Your task to perform on an android device: turn notification dots off Image 0: 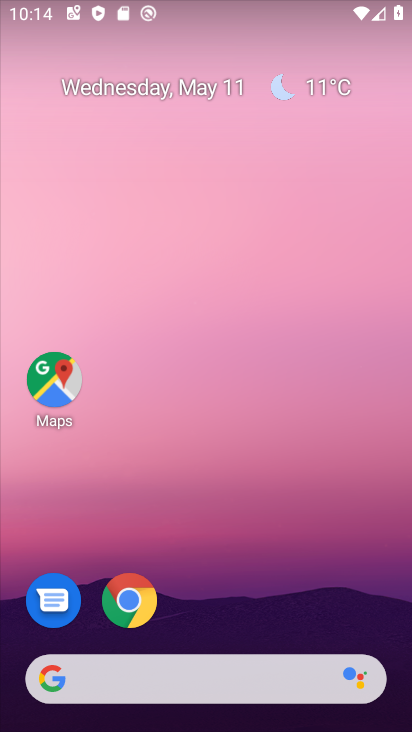
Step 0: drag from (239, 511) to (208, 208)
Your task to perform on an android device: turn notification dots off Image 1: 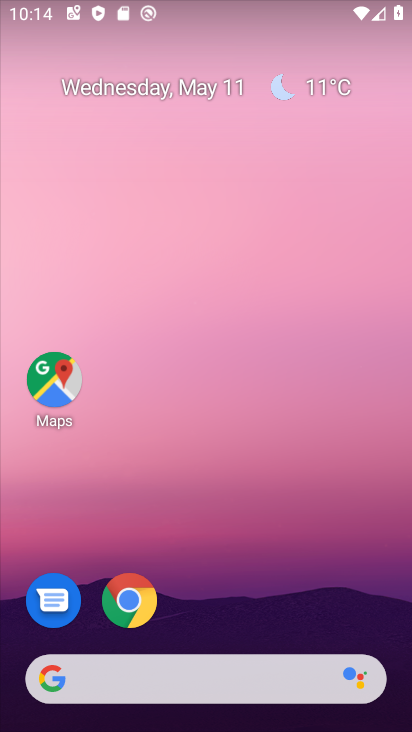
Step 1: drag from (228, 474) to (195, 39)
Your task to perform on an android device: turn notification dots off Image 2: 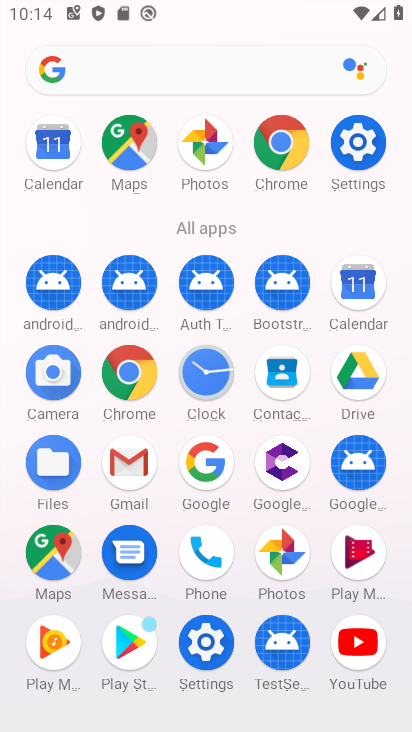
Step 2: click (347, 145)
Your task to perform on an android device: turn notification dots off Image 3: 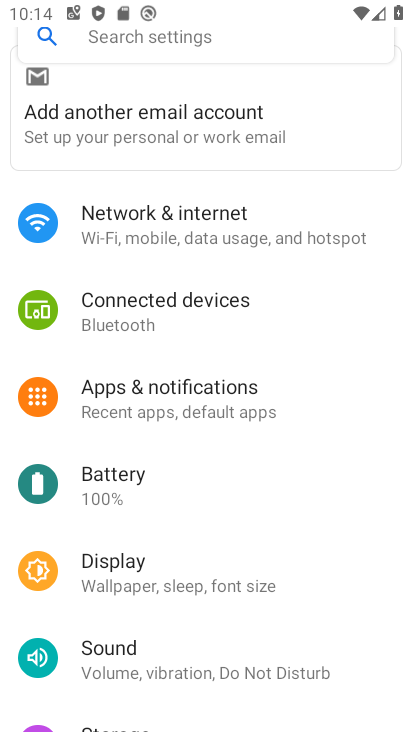
Step 3: click (206, 395)
Your task to perform on an android device: turn notification dots off Image 4: 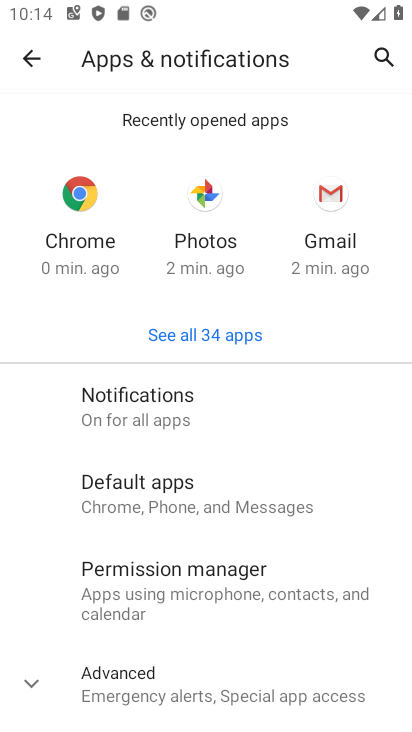
Step 4: click (263, 407)
Your task to perform on an android device: turn notification dots off Image 5: 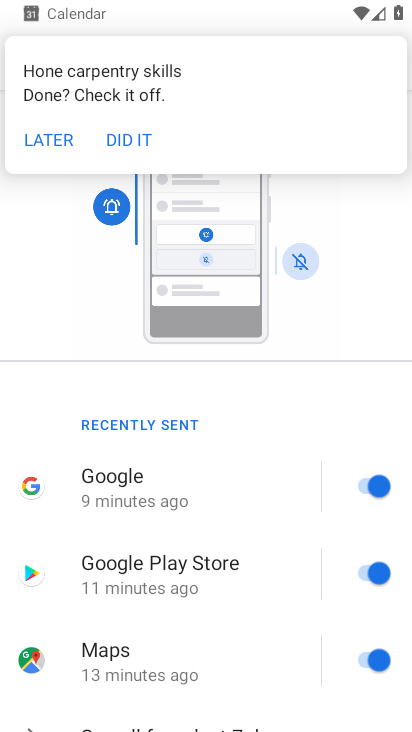
Step 5: drag from (282, 637) to (322, 463)
Your task to perform on an android device: turn notification dots off Image 6: 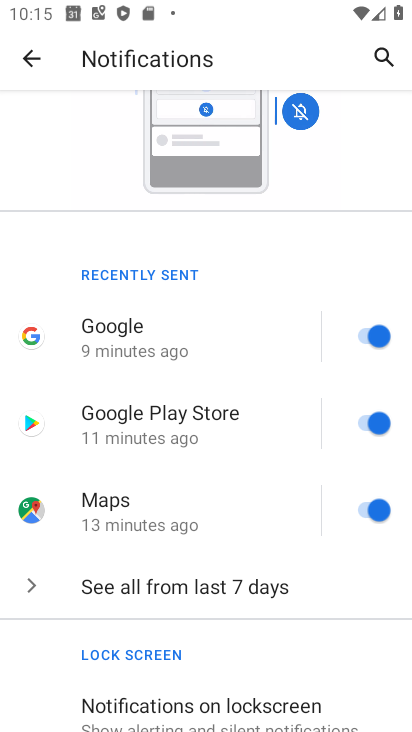
Step 6: drag from (316, 158) to (268, 642)
Your task to perform on an android device: turn notification dots off Image 7: 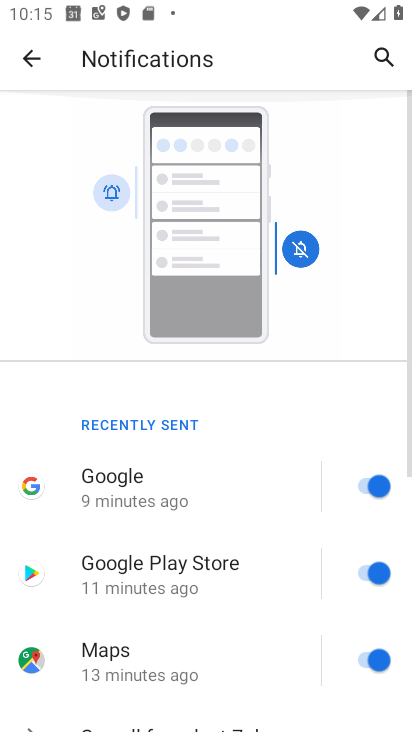
Step 7: drag from (264, 634) to (341, 125)
Your task to perform on an android device: turn notification dots off Image 8: 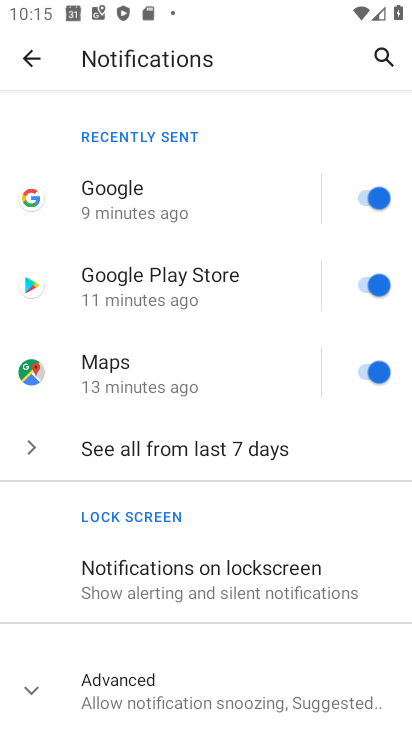
Step 8: click (206, 702)
Your task to perform on an android device: turn notification dots off Image 9: 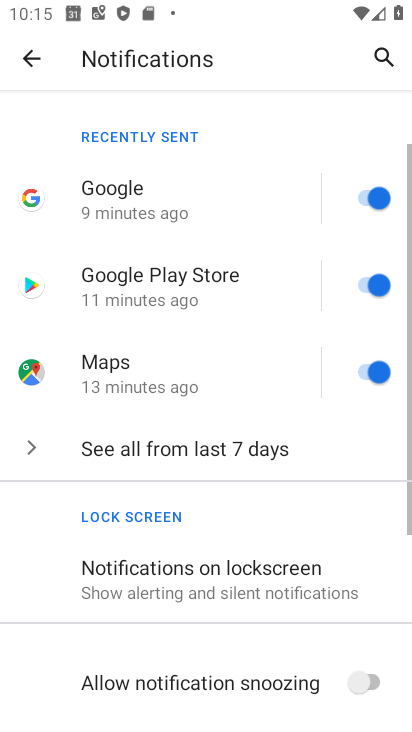
Step 9: drag from (173, 722) to (238, 369)
Your task to perform on an android device: turn notification dots off Image 10: 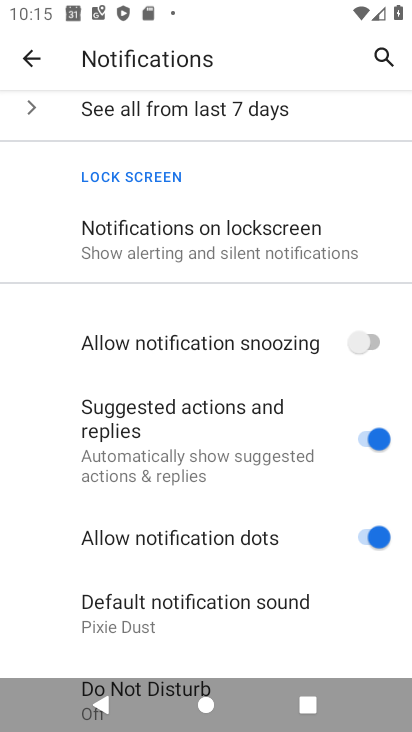
Step 10: drag from (223, 560) to (267, 291)
Your task to perform on an android device: turn notification dots off Image 11: 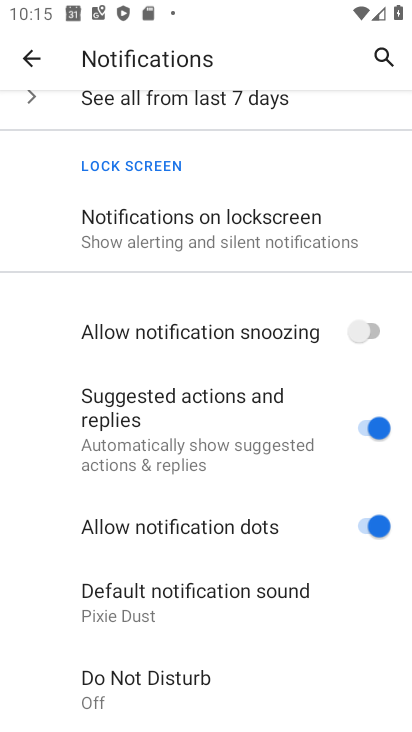
Step 11: click (378, 523)
Your task to perform on an android device: turn notification dots off Image 12: 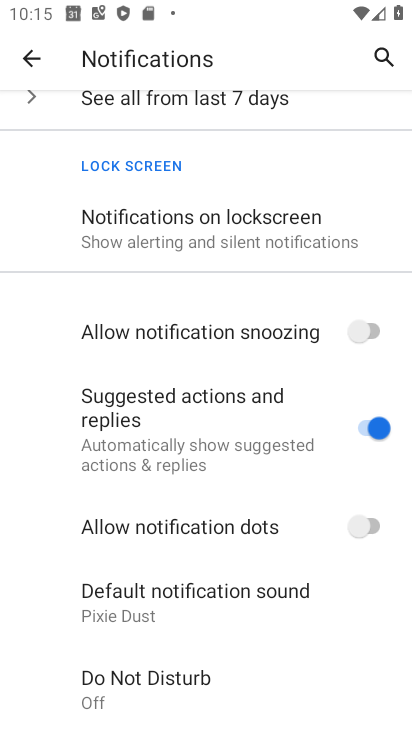
Step 12: task complete